Your task to perform on an android device: turn on the 24-hour format for clock Image 0: 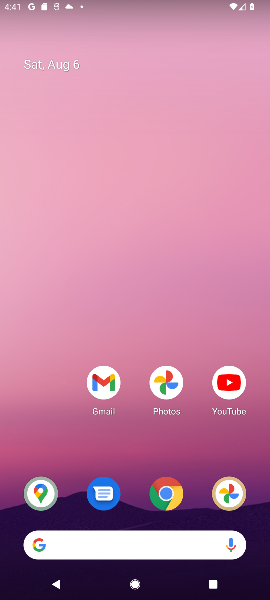
Step 0: drag from (199, 566) to (88, 2)
Your task to perform on an android device: turn on the 24-hour format for clock Image 1: 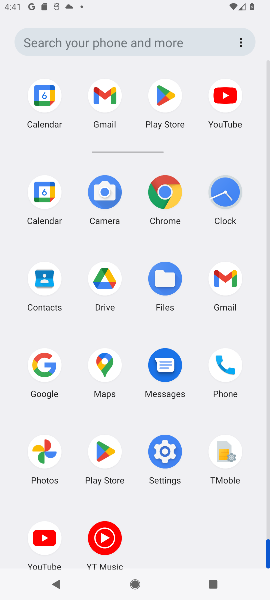
Step 1: click (229, 188)
Your task to perform on an android device: turn on the 24-hour format for clock Image 2: 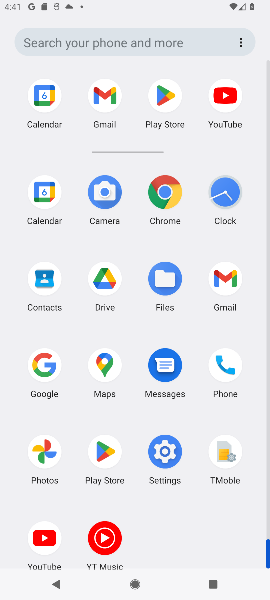
Step 2: click (229, 188)
Your task to perform on an android device: turn on the 24-hour format for clock Image 3: 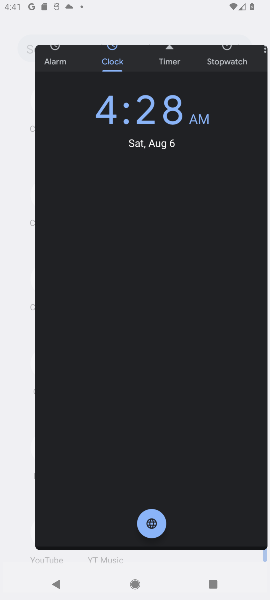
Step 3: click (229, 188)
Your task to perform on an android device: turn on the 24-hour format for clock Image 4: 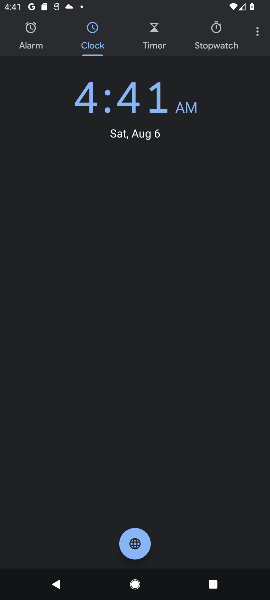
Step 4: click (230, 189)
Your task to perform on an android device: turn on the 24-hour format for clock Image 5: 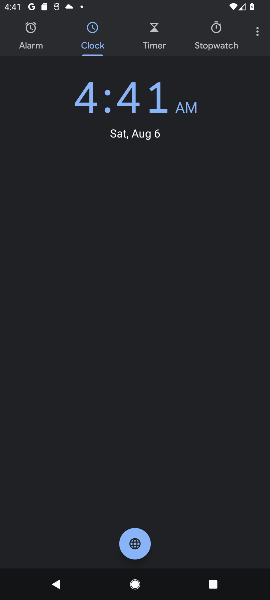
Step 5: click (230, 189)
Your task to perform on an android device: turn on the 24-hour format for clock Image 6: 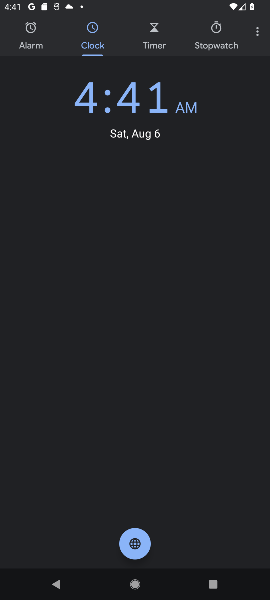
Step 6: click (253, 29)
Your task to perform on an android device: turn on the 24-hour format for clock Image 7: 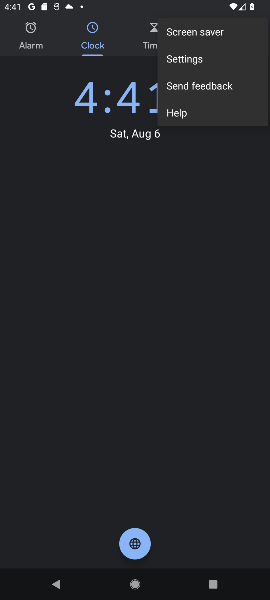
Step 7: click (175, 60)
Your task to perform on an android device: turn on the 24-hour format for clock Image 8: 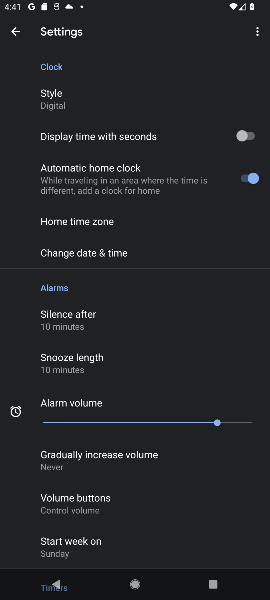
Step 8: drag from (104, 505) to (123, 89)
Your task to perform on an android device: turn on the 24-hour format for clock Image 9: 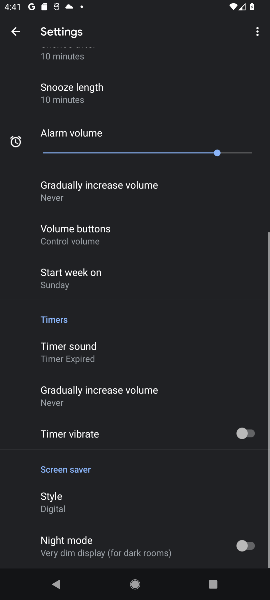
Step 9: drag from (126, 438) to (99, 171)
Your task to perform on an android device: turn on the 24-hour format for clock Image 10: 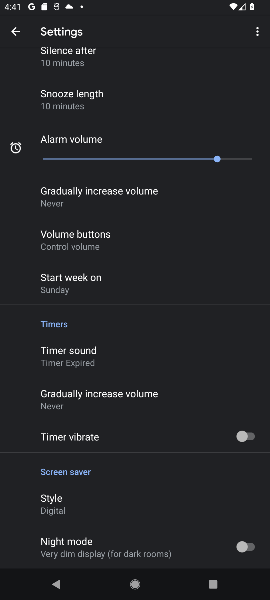
Step 10: drag from (98, 494) to (69, 196)
Your task to perform on an android device: turn on the 24-hour format for clock Image 11: 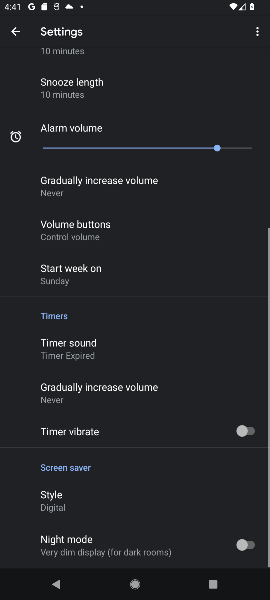
Step 11: drag from (137, 360) to (121, 228)
Your task to perform on an android device: turn on the 24-hour format for clock Image 12: 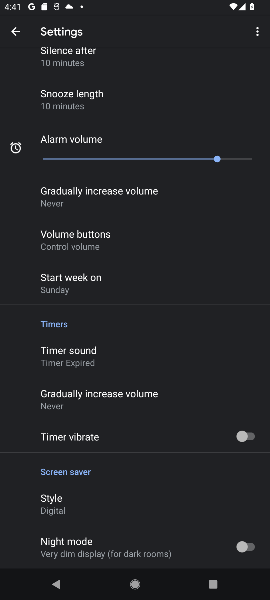
Step 12: drag from (97, 107) to (126, 391)
Your task to perform on an android device: turn on the 24-hour format for clock Image 13: 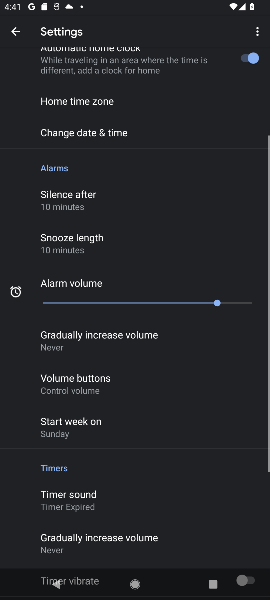
Step 13: drag from (101, 244) to (142, 365)
Your task to perform on an android device: turn on the 24-hour format for clock Image 14: 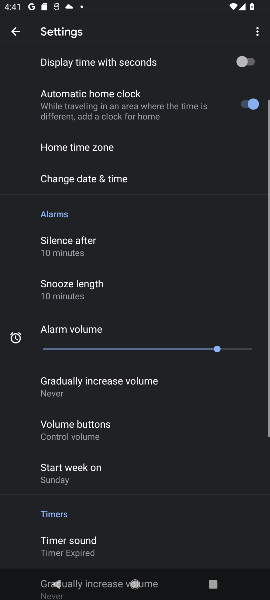
Step 14: drag from (105, 97) to (168, 288)
Your task to perform on an android device: turn on the 24-hour format for clock Image 15: 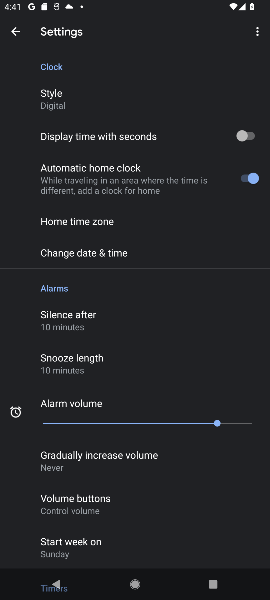
Step 15: click (91, 225)
Your task to perform on an android device: turn on the 24-hour format for clock Image 16: 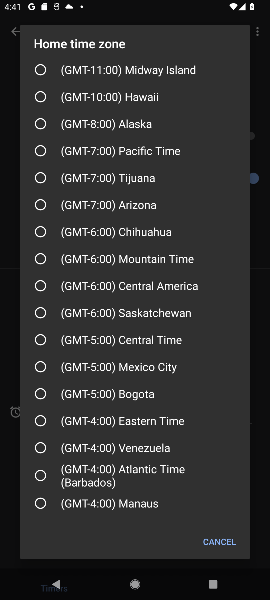
Step 16: click (253, 249)
Your task to perform on an android device: turn on the 24-hour format for clock Image 17: 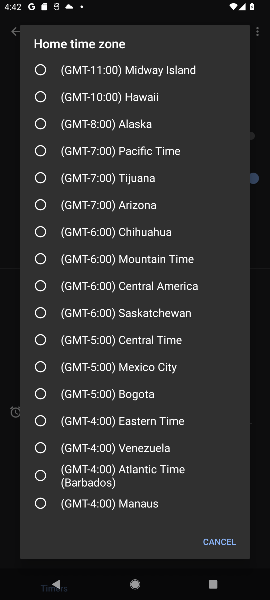
Step 17: click (255, 245)
Your task to perform on an android device: turn on the 24-hour format for clock Image 18: 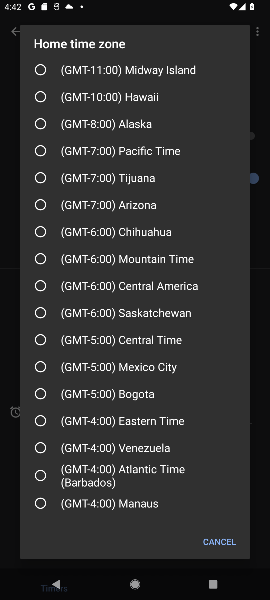
Step 18: click (258, 244)
Your task to perform on an android device: turn on the 24-hour format for clock Image 19: 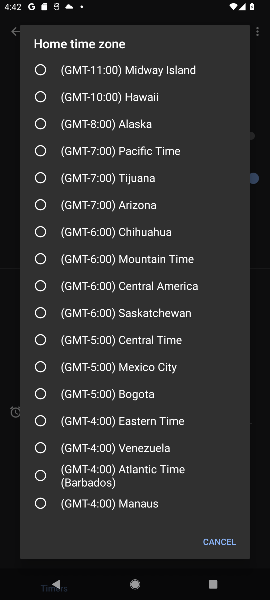
Step 19: click (259, 244)
Your task to perform on an android device: turn on the 24-hour format for clock Image 20: 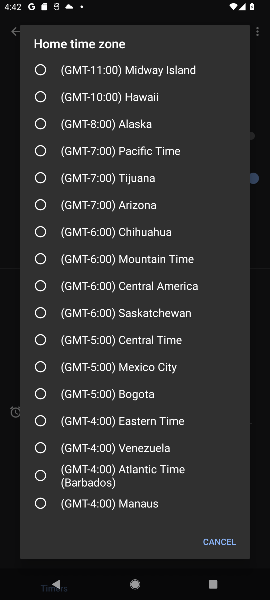
Step 20: click (260, 245)
Your task to perform on an android device: turn on the 24-hour format for clock Image 21: 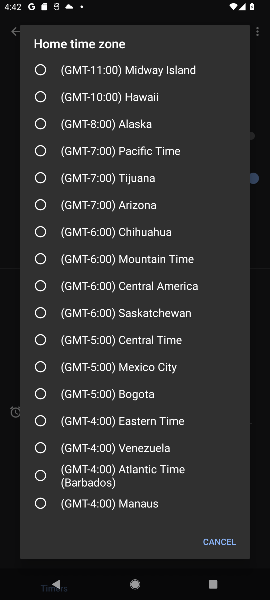
Step 21: click (260, 245)
Your task to perform on an android device: turn on the 24-hour format for clock Image 22: 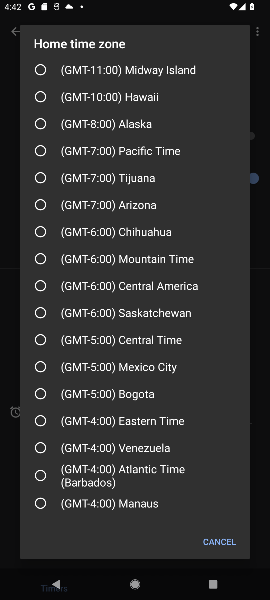
Step 22: click (223, 542)
Your task to perform on an android device: turn on the 24-hour format for clock Image 23: 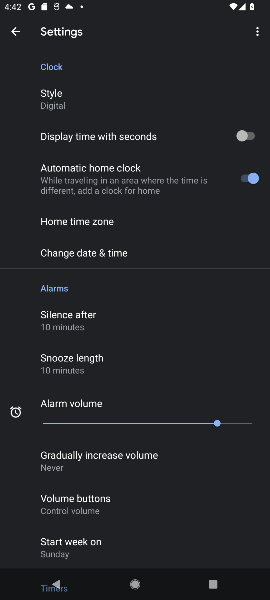
Step 23: click (84, 255)
Your task to perform on an android device: turn on the 24-hour format for clock Image 24: 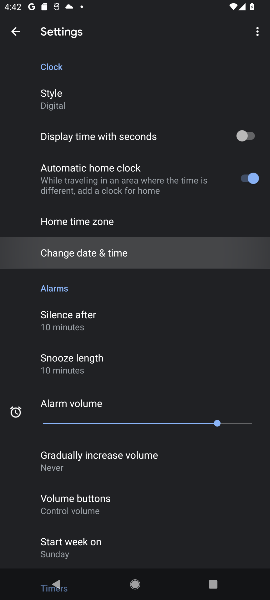
Step 24: click (83, 255)
Your task to perform on an android device: turn on the 24-hour format for clock Image 25: 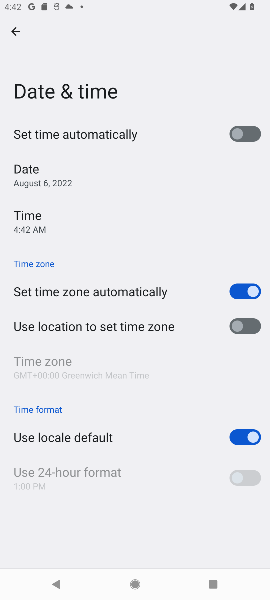
Step 25: task complete